Your task to perform on an android device: turn on location history Image 0: 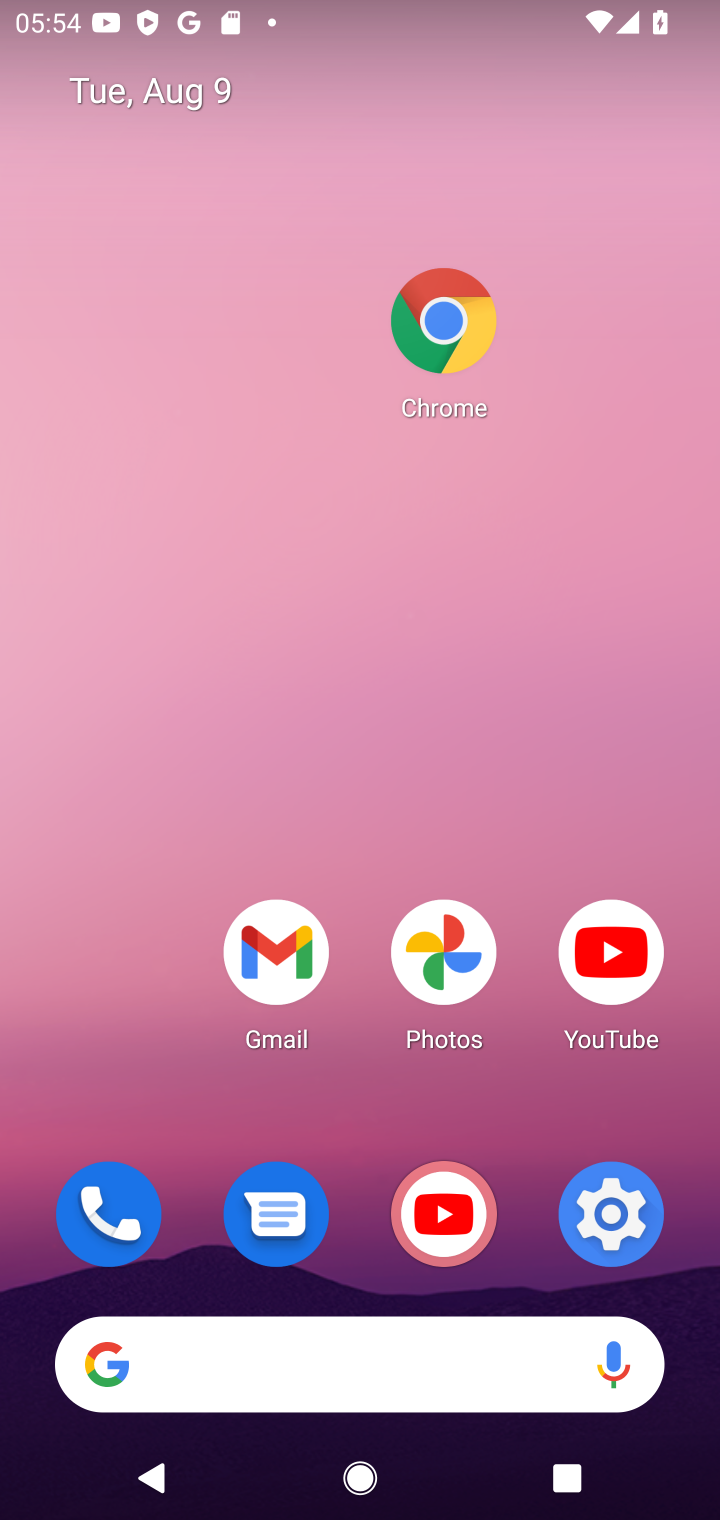
Step 0: press home button
Your task to perform on an android device: turn on location history Image 1: 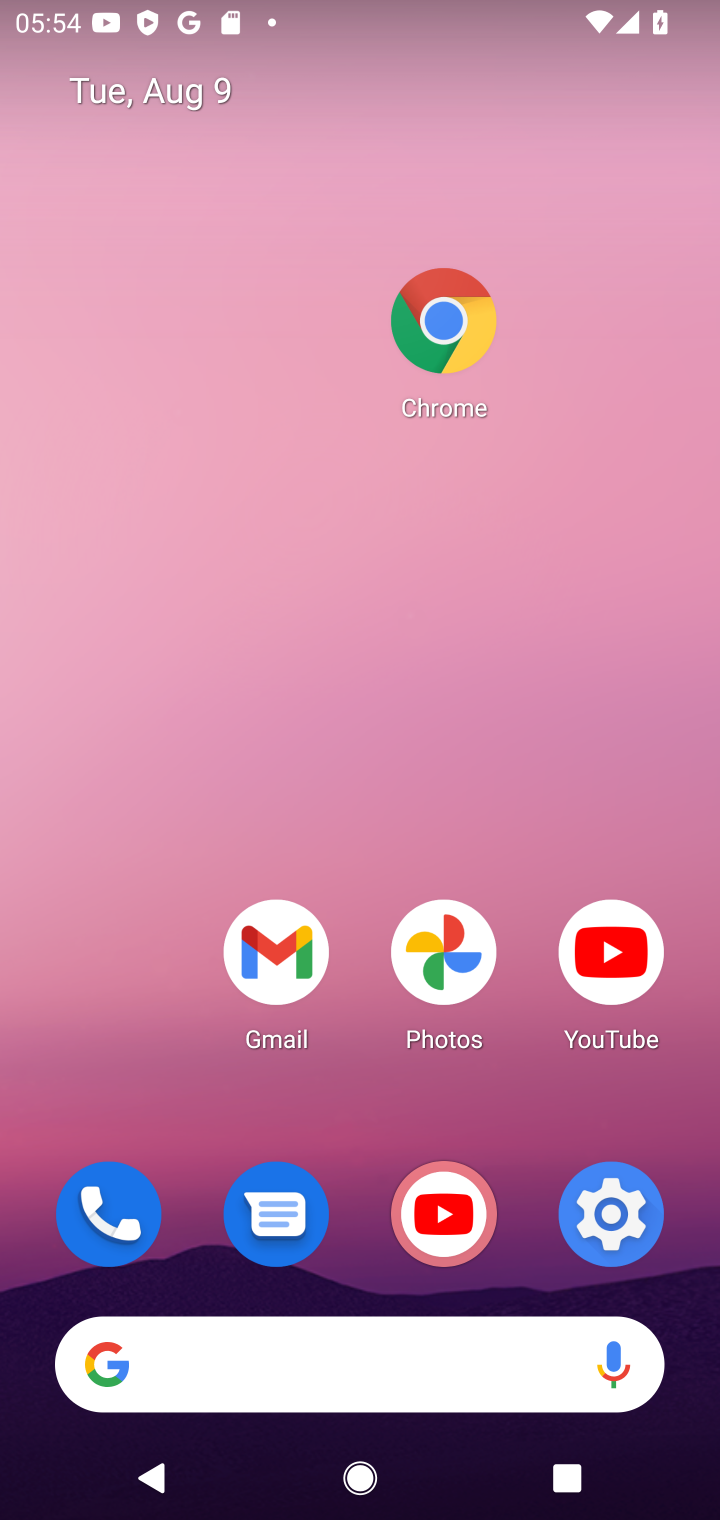
Step 1: drag from (469, 1345) to (328, 376)
Your task to perform on an android device: turn on location history Image 2: 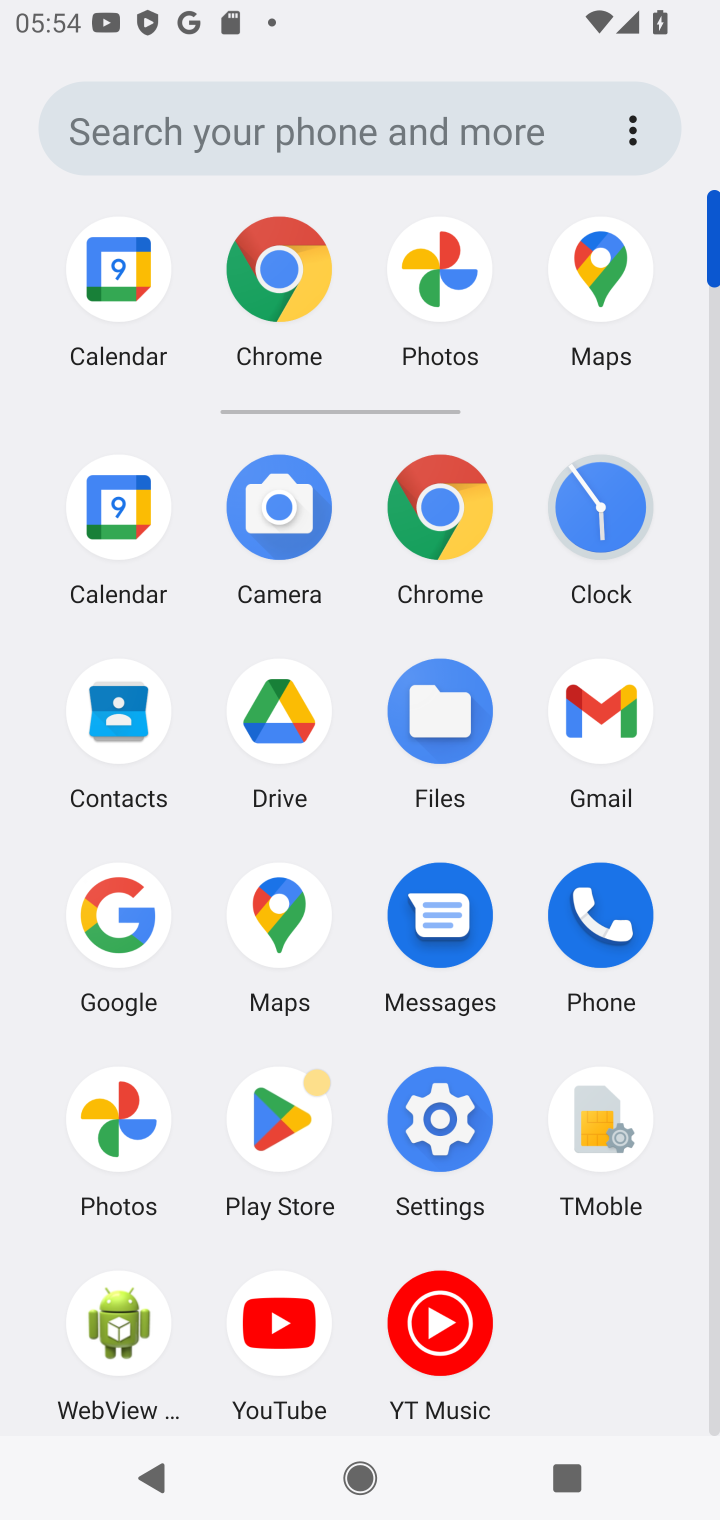
Step 2: click (444, 1092)
Your task to perform on an android device: turn on location history Image 3: 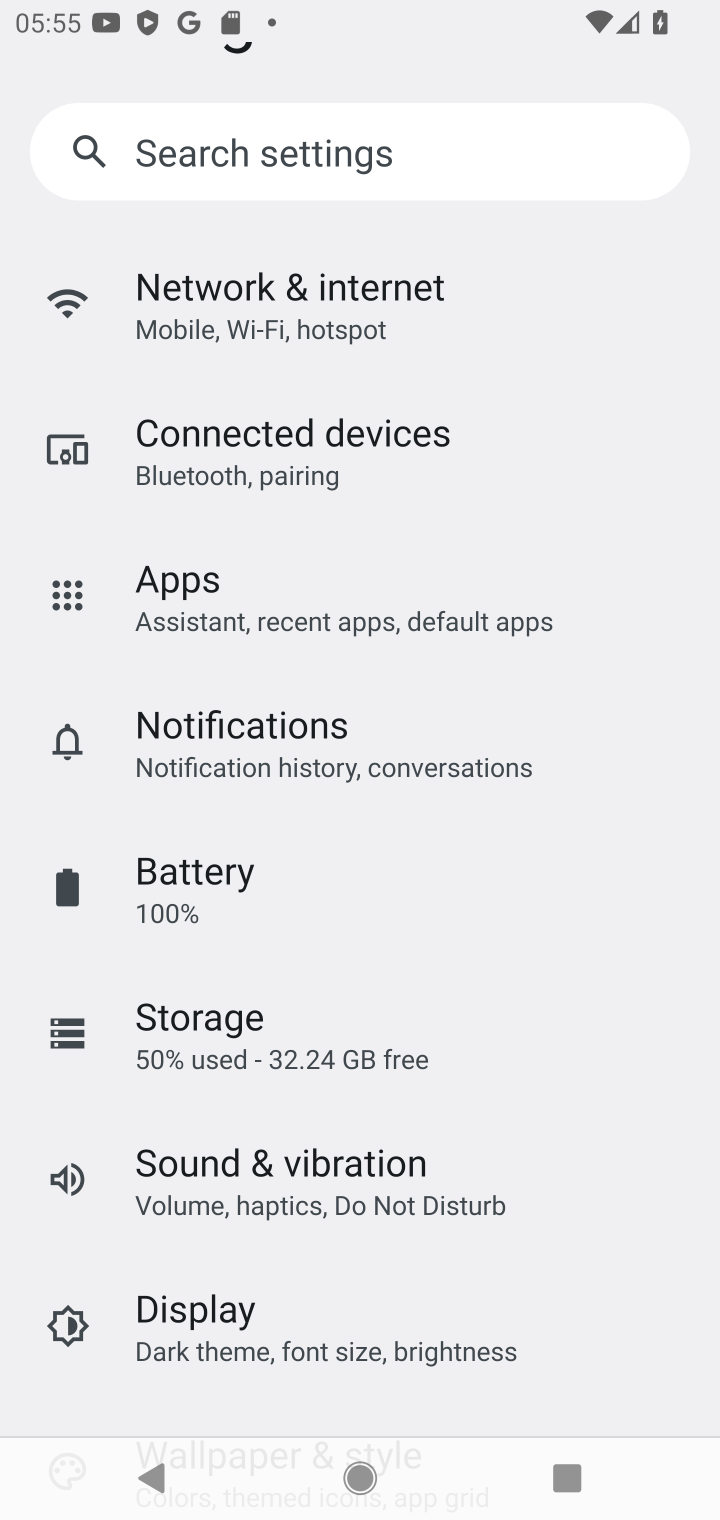
Step 3: click (305, 170)
Your task to perform on an android device: turn on location history Image 4: 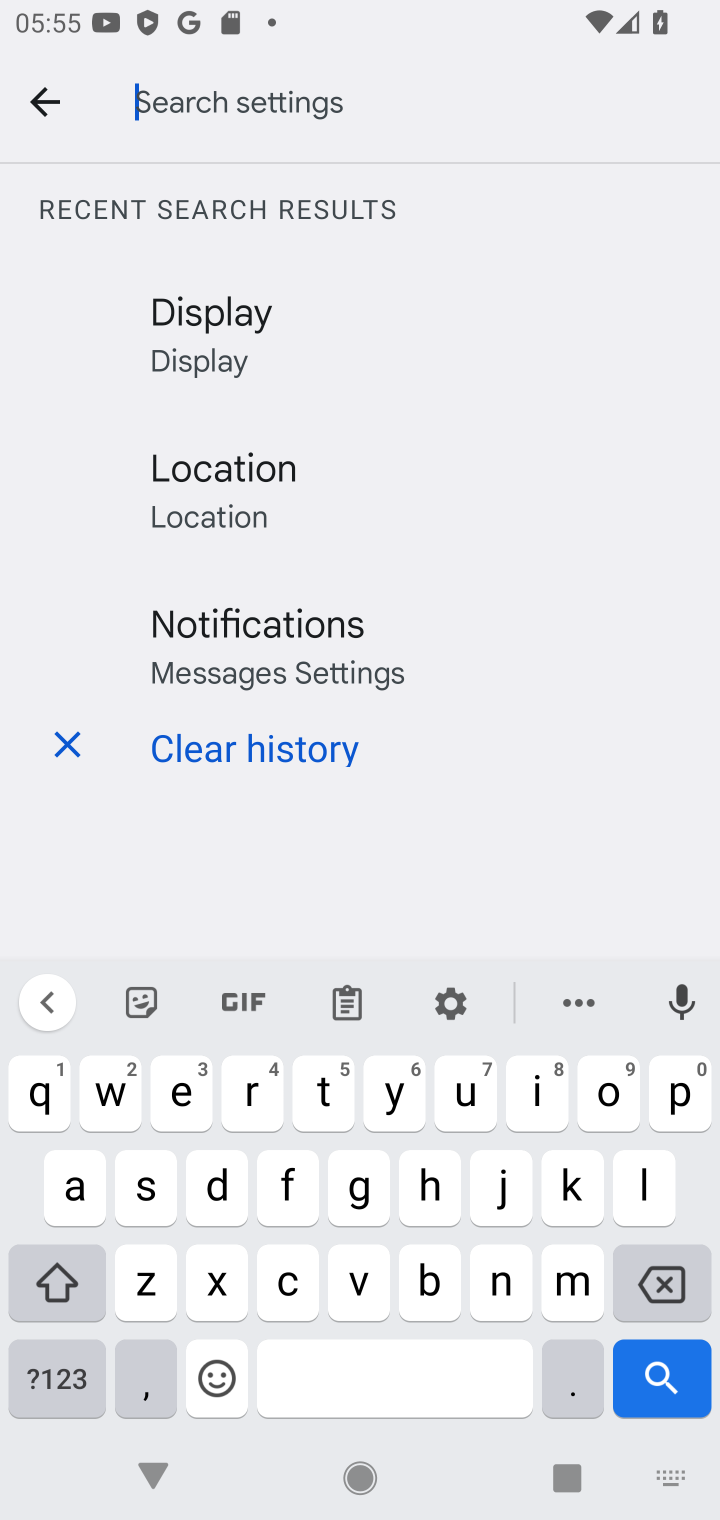
Step 4: click (182, 480)
Your task to perform on an android device: turn on location history Image 5: 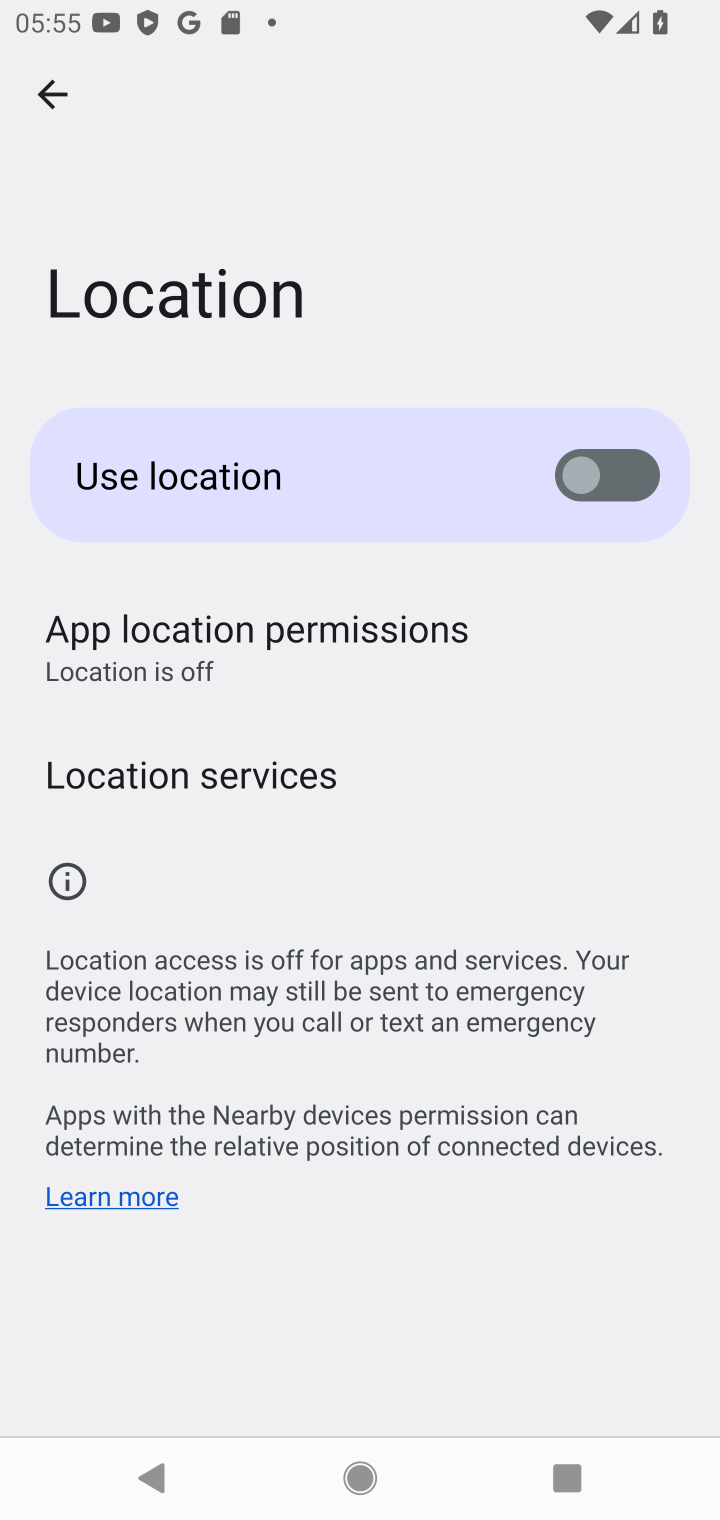
Step 5: click (612, 481)
Your task to perform on an android device: turn on location history Image 6: 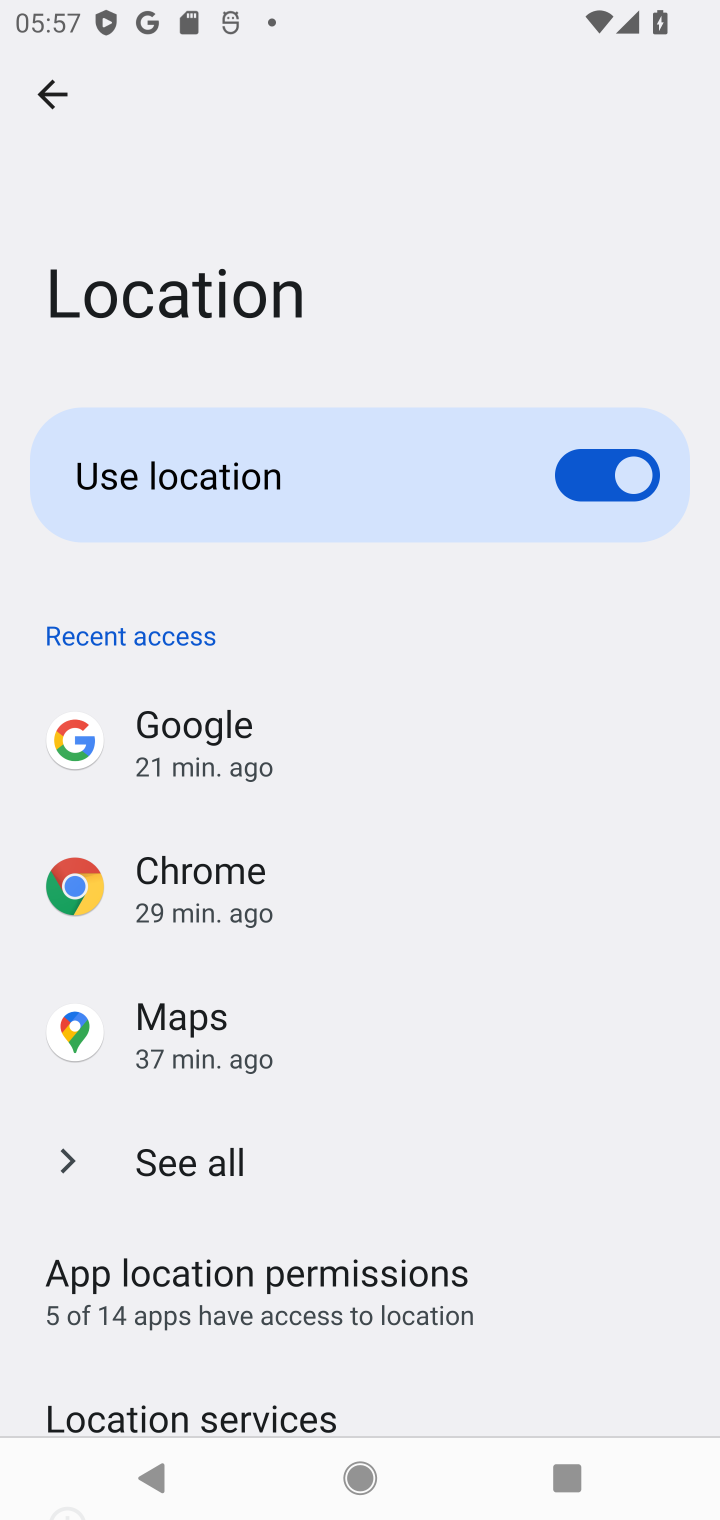
Step 6: task complete